Your task to perform on an android device: turn on notifications settings in the gmail app Image 0: 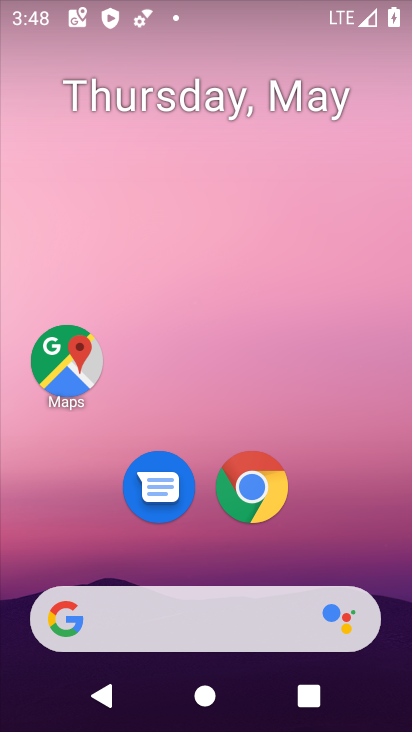
Step 0: drag from (258, 635) to (261, 0)
Your task to perform on an android device: turn on notifications settings in the gmail app Image 1: 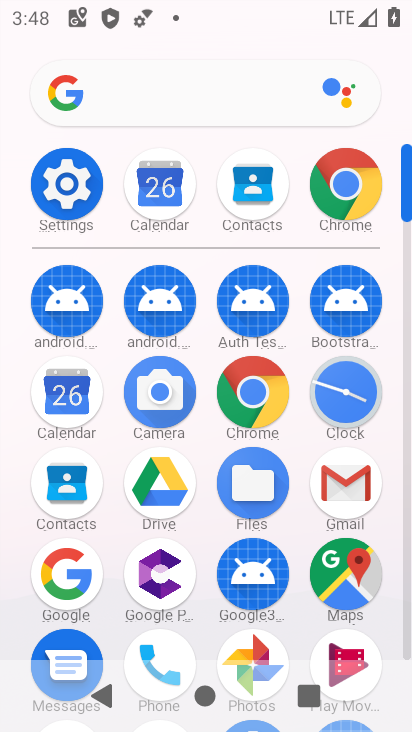
Step 1: click (350, 492)
Your task to perform on an android device: turn on notifications settings in the gmail app Image 2: 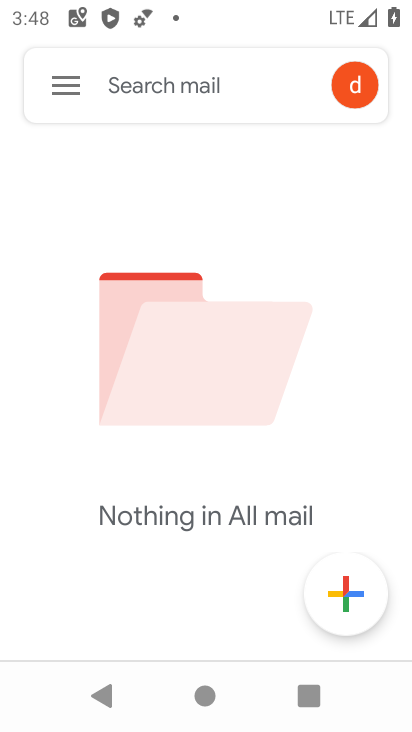
Step 2: click (62, 89)
Your task to perform on an android device: turn on notifications settings in the gmail app Image 3: 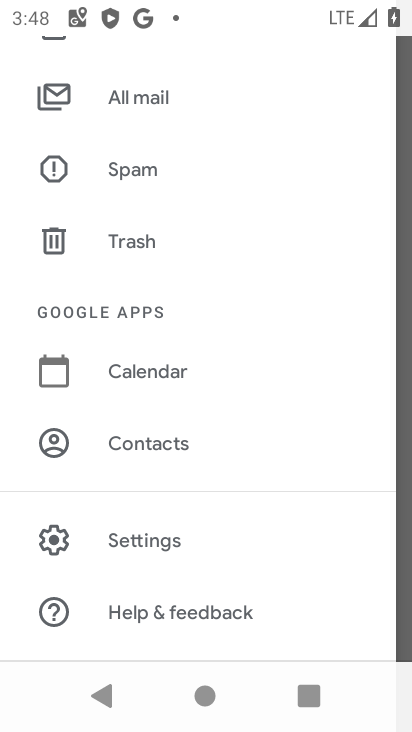
Step 3: click (146, 547)
Your task to perform on an android device: turn on notifications settings in the gmail app Image 4: 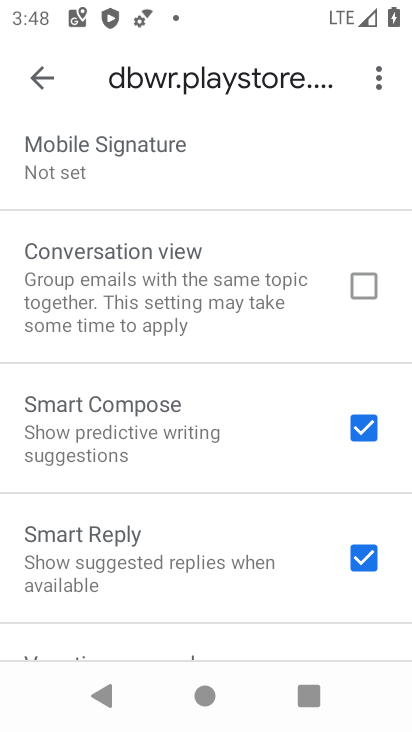
Step 4: click (36, 75)
Your task to perform on an android device: turn on notifications settings in the gmail app Image 5: 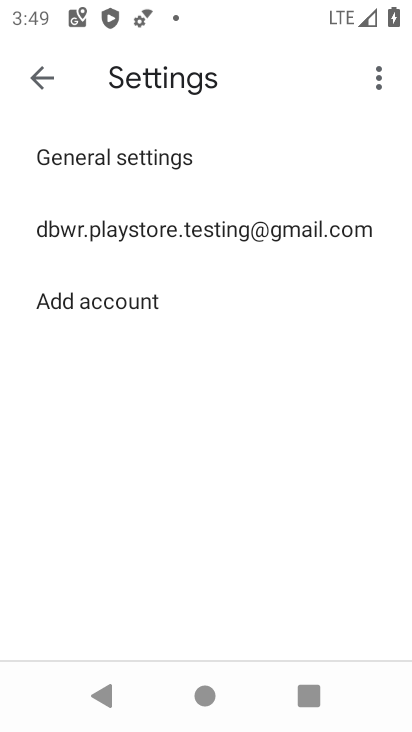
Step 5: click (132, 160)
Your task to perform on an android device: turn on notifications settings in the gmail app Image 6: 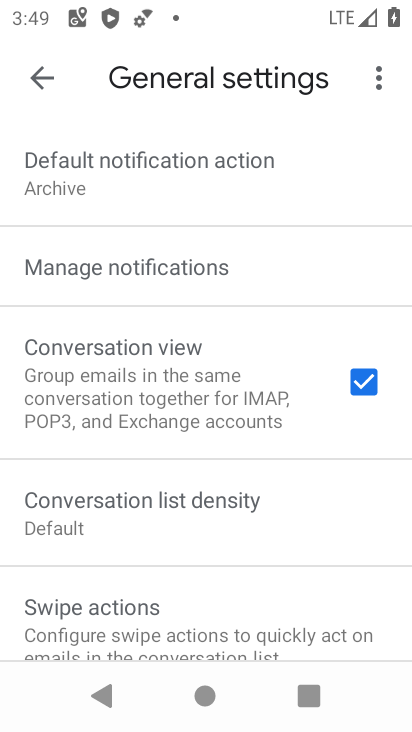
Step 6: click (161, 275)
Your task to perform on an android device: turn on notifications settings in the gmail app Image 7: 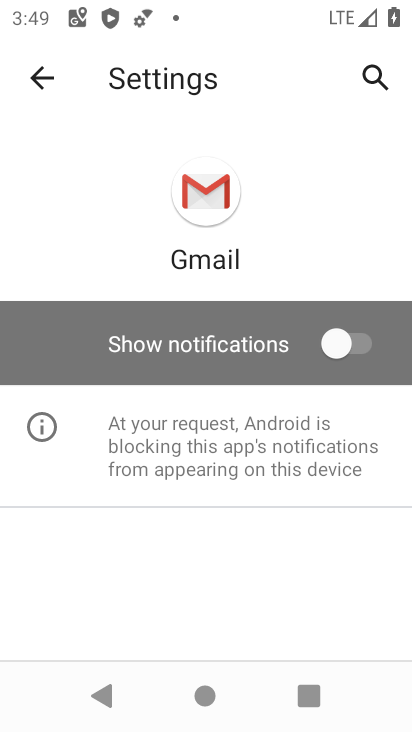
Step 7: click (266, 346)
Your task to perform on an android device: turn on notifications settings in the gmail app Image 8: 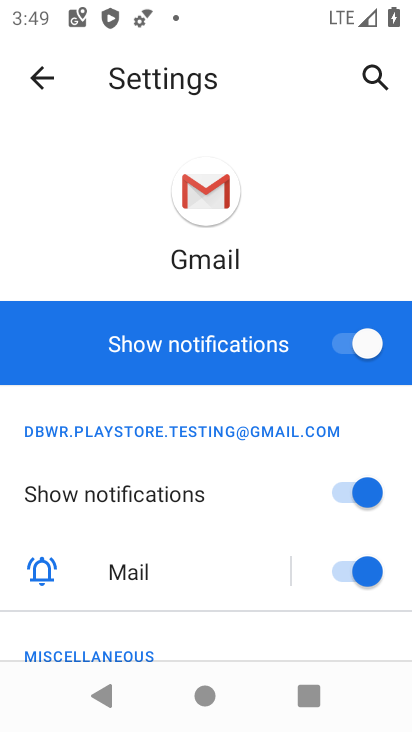
Step 8: task complete